Your task to perform on an android device: What's the weather going to be this weekend? Image 0: 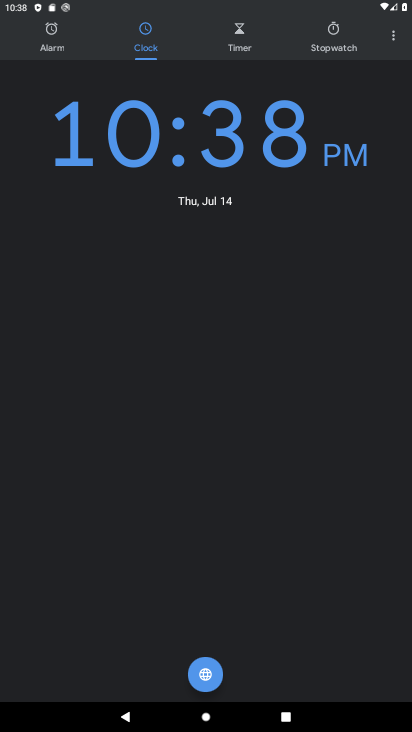
Step 0: press home button
Your task to perform on an android device: What's the weather going to be this weekend? Image 1: 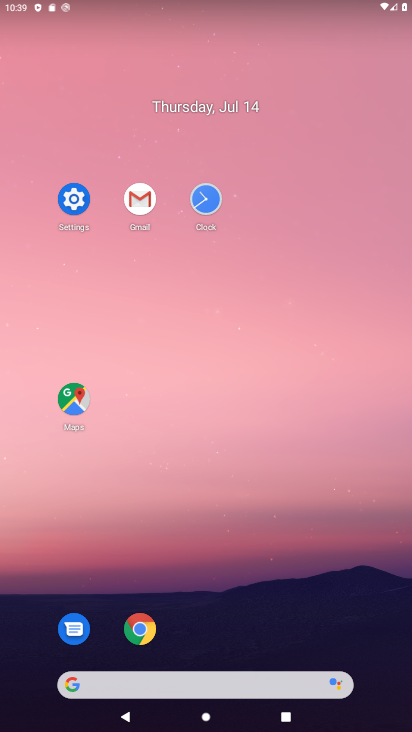
Step 1: click (136, 628)
Your task to perform on an android device: What's the weather going to be this weekend? Image 2: 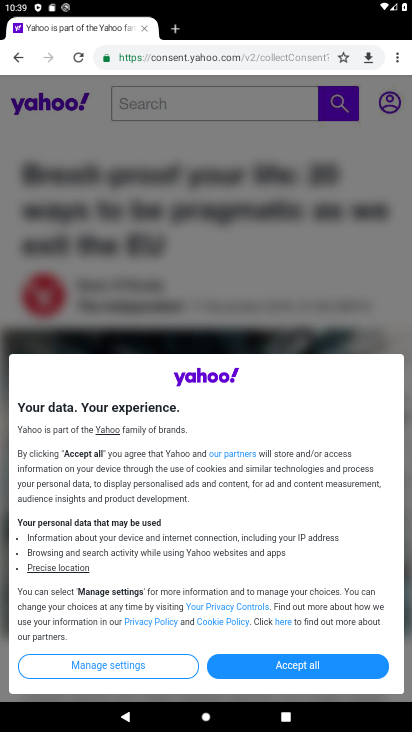
Step 2: click (181, 33)
Your task to perform on an android device: What's the weather going to be this weekend? Image 3: 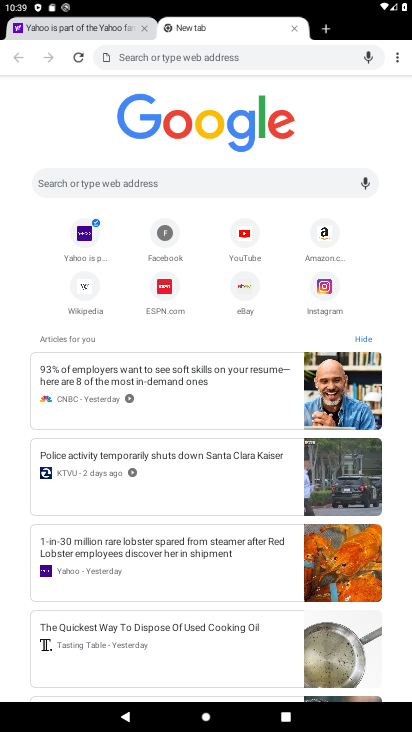
Step 3: click (179, 177)
Your task to perform on an android device: What's the weather going to be this weekend? Image 4: 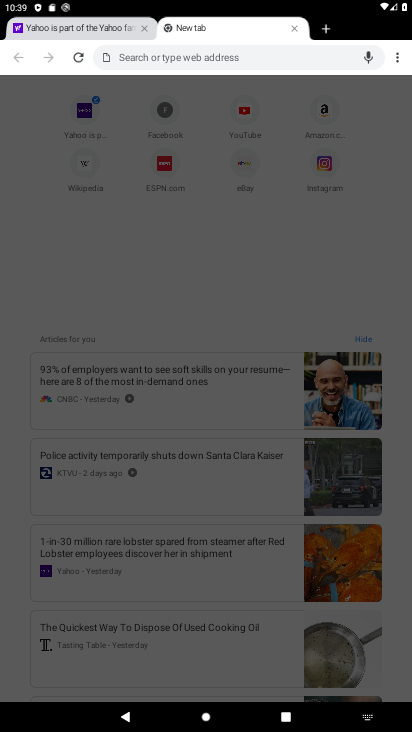
Step 4: type "weather"
Your task to perform on an android device: What's the weather going to be this weekend? Image 5: 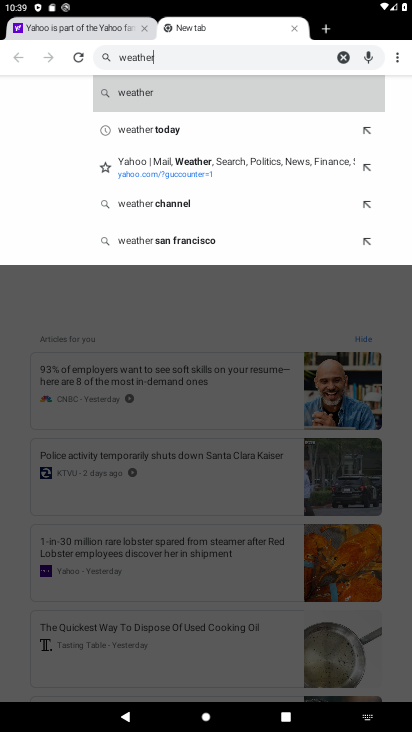
Step 5: click (190, 91)
Your task to perform on an android device: What's the weather going to be this weekend? Image 6: 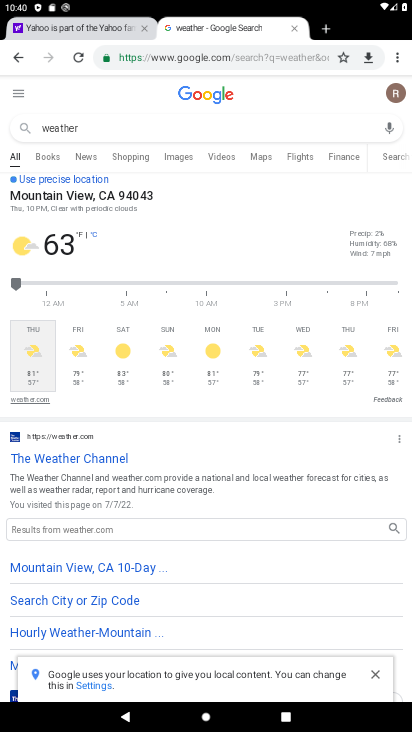
Step 6: click (132, 353)
Your task to perform on an android device: What's the weather going to be this weekend? Image 7: 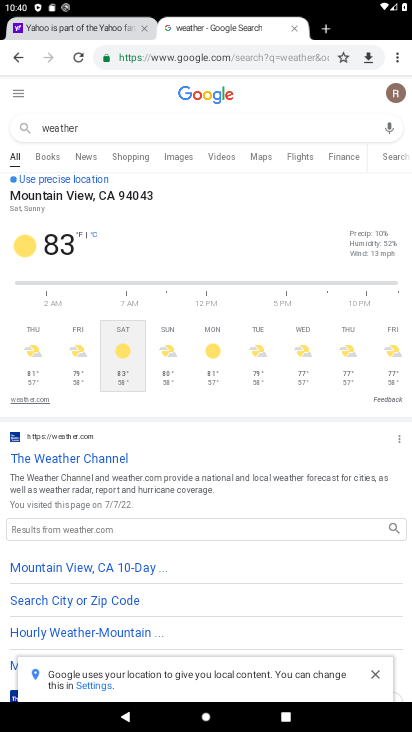
Step 7: task complete